Your task to perform on an android device: change the clock display to analog Image 0: 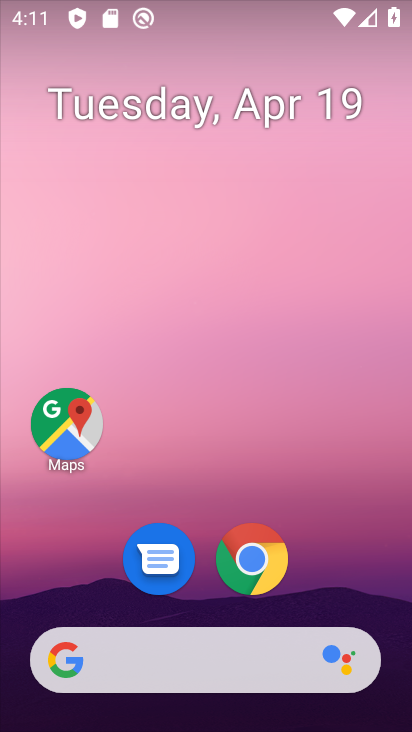
Step 0: drag from (331, 552) to (329, 180)
Your task to perform on an android device: change the clock display to analog Image 1: 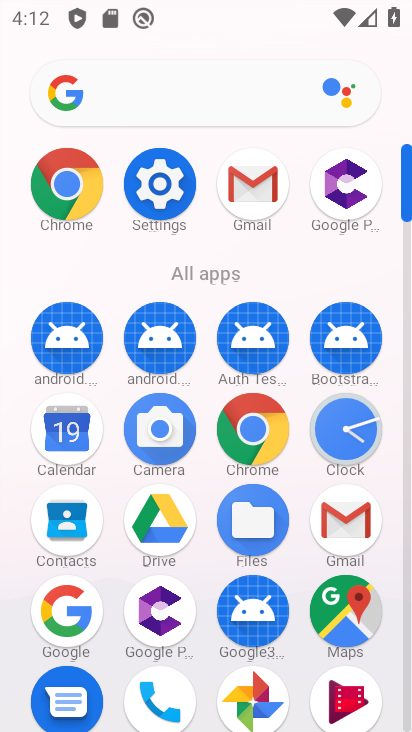
Step 1: click (339, 468)
Your task to perform on an android device: change the clock display to analog Image 2: 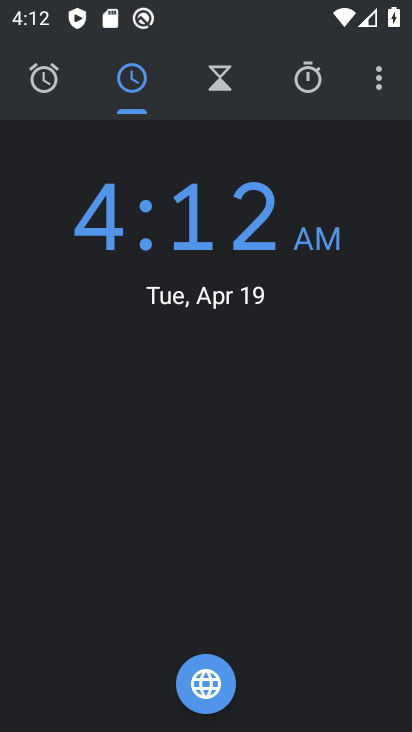
Step 2: click (375, 87)
Your task to perform on an android device: change the clock display to analog Image 3: 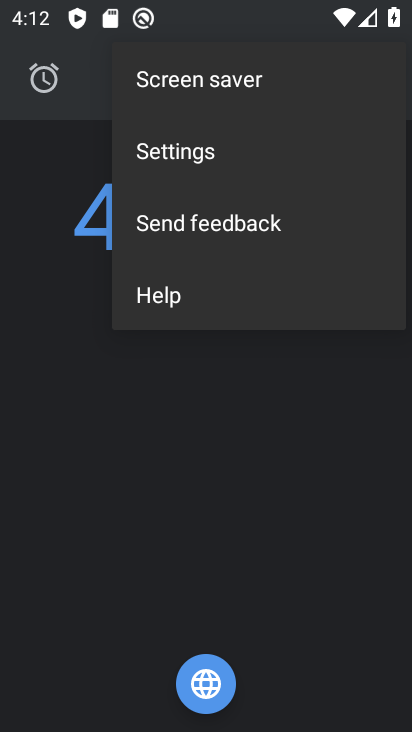
Step 3: click (316, 173)
Your task to perform on an android device: change the clock display to analog Image 4: 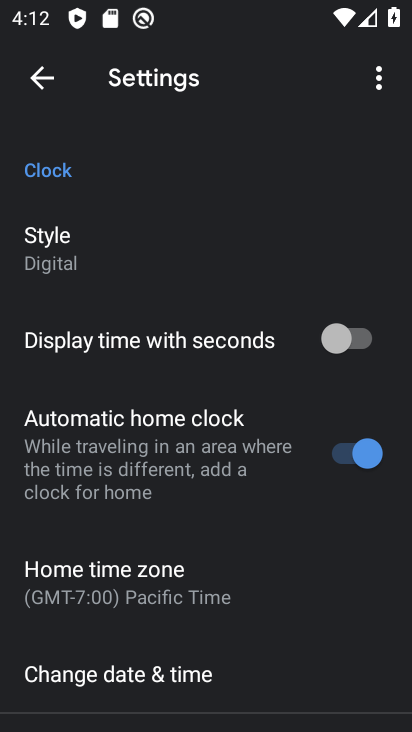
Step 4: drag from (157, 464) to (150, 249)
Your task to perform on an android device: change the clock display to analog Image 5: 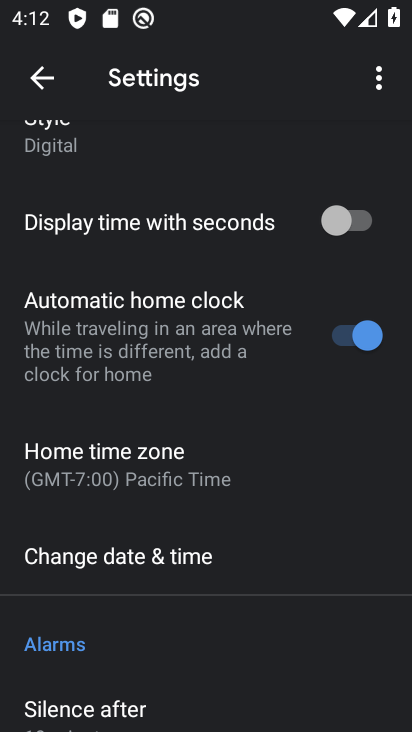
Step 5: click (117, 568)
Your task to perform on an android device: change the clock display to analog Image 6: 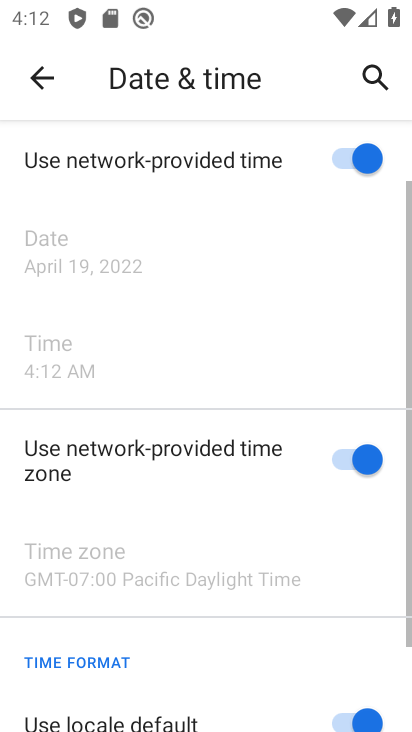
Step 6: drag from (117, 568) to (226, 269)
Your task to perform on an android device: change the clock display to analog Image 7: 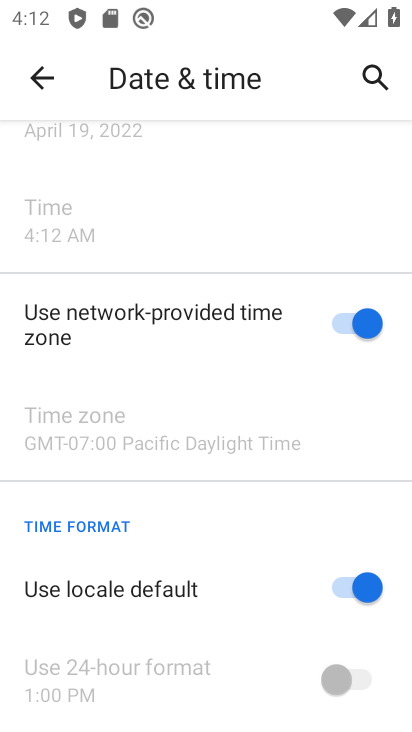
Step 7: click (381, 596)
Your task to perform on an android device: change the clock display to analog Image 8: 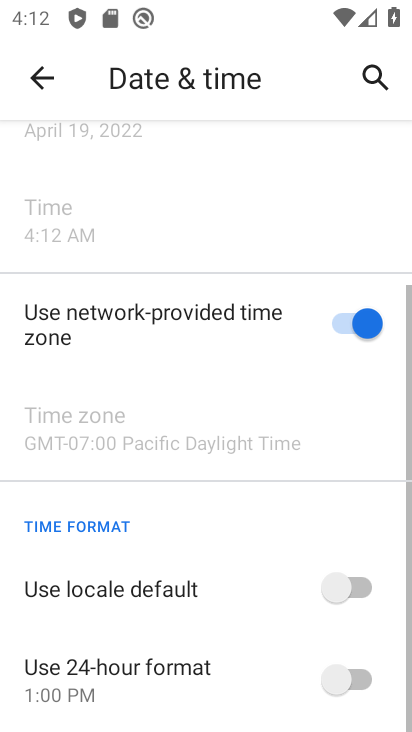
Step 8: click (376, 602)
Your task to perform on an android device: change the clock display to analog Image 9: 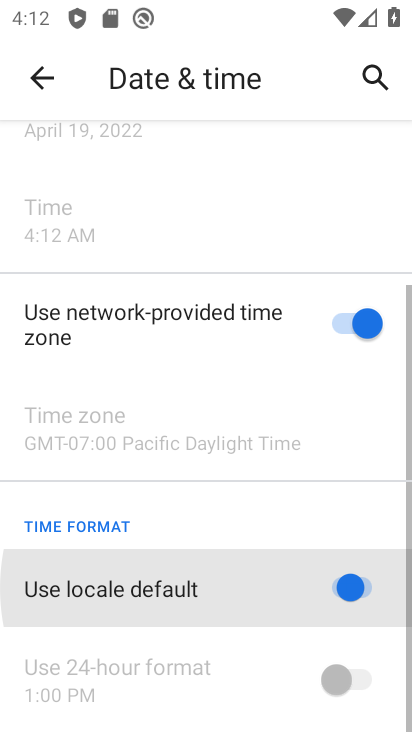
Step 9: drag from (297, 446) to (277, 623)
Your task to perform on an android device: change the clock display to analog Image 10: 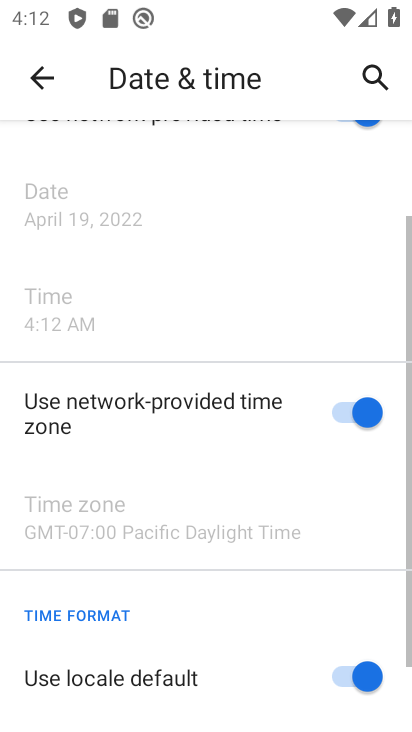
Step 10: drag from (237, 393) to (239, 704)
Your task to perform on an android device: change the clock display to analog Image 11: 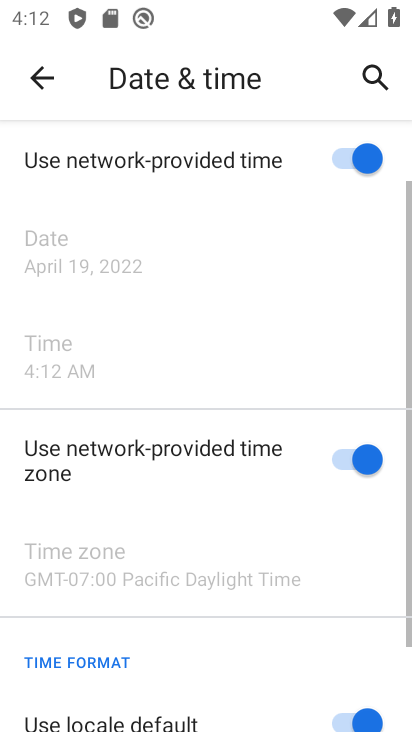
Step 11: drag from (198, 298) to (180, 527)
Your task to perform on an android device: change the clock display to analog Image 12: 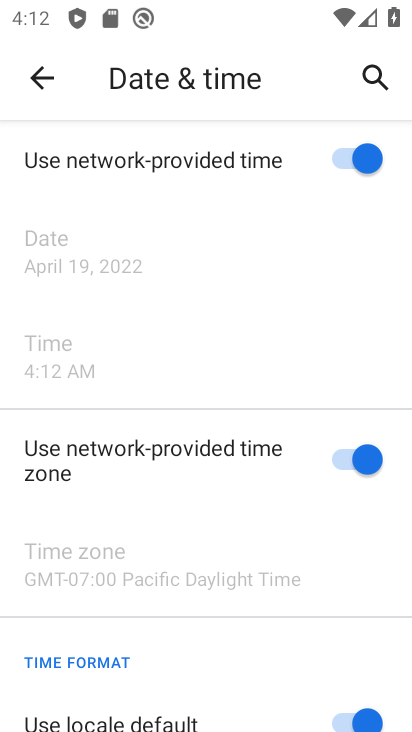
Step 12: click (14, 88)
Your task to perform on an android device: change the clock display to analog Image 13: 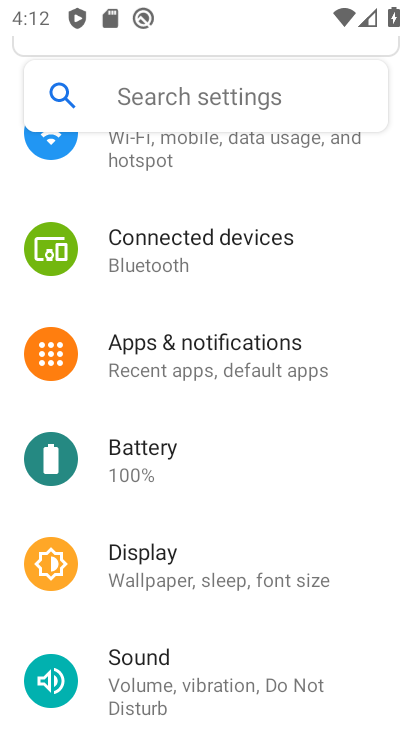
Step 13: press back button
Your task to perform on an android device: change the clock display to analog Image 14: 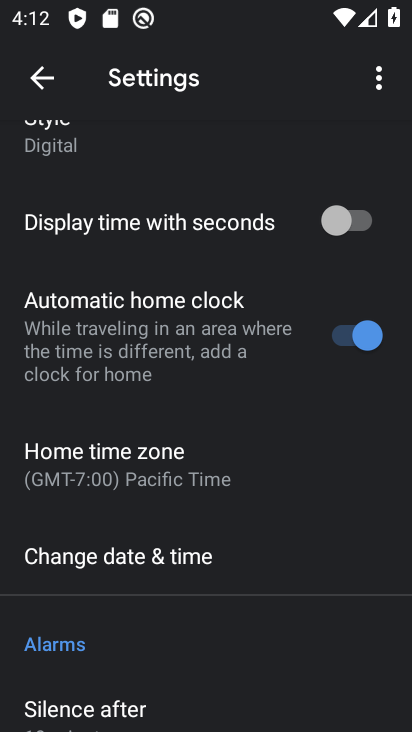
Step 14: drag from (217, 247) to (122, 668)
Your task to perform on an android device: change the clock display to analog Image 15: 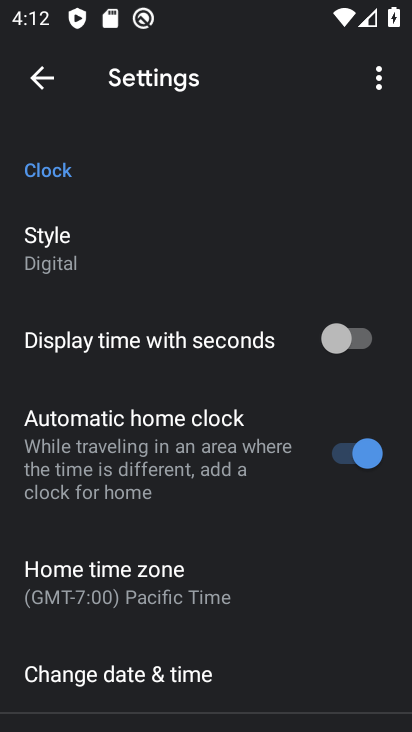
Step 15: click (117, 266)
Your task to perform on an android device: change the clock display to analog Image 16: 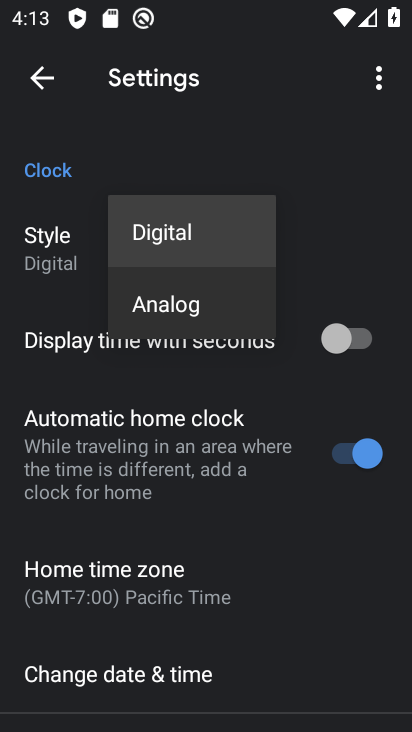
Step 16: click (159, 296)
Your task to perform on an android device: change the clock display to analog Image 17: 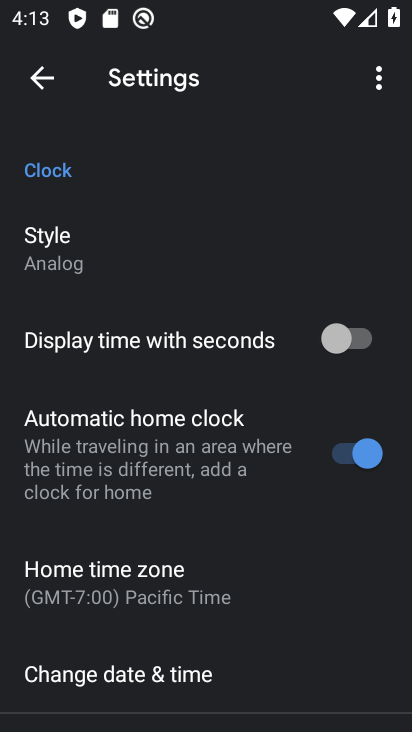
Step 17: task complete